Your task to perform on an android device: find which apps use the phone's location Image 0: 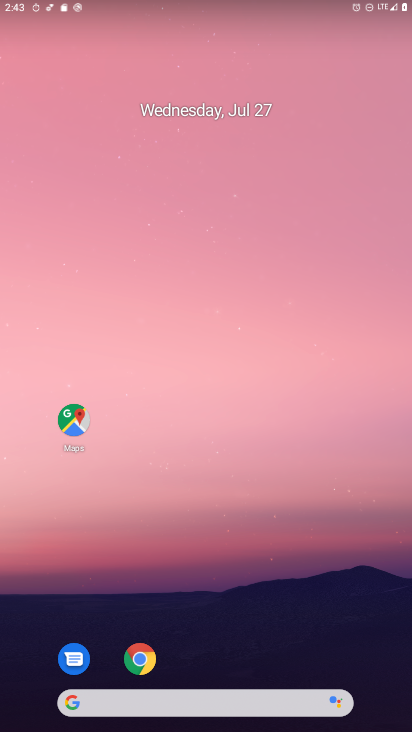
Step 0: drag from (256, 611) to (239, 11)
Your task to perform on an android device: find which apps use the phone's location Image 1: 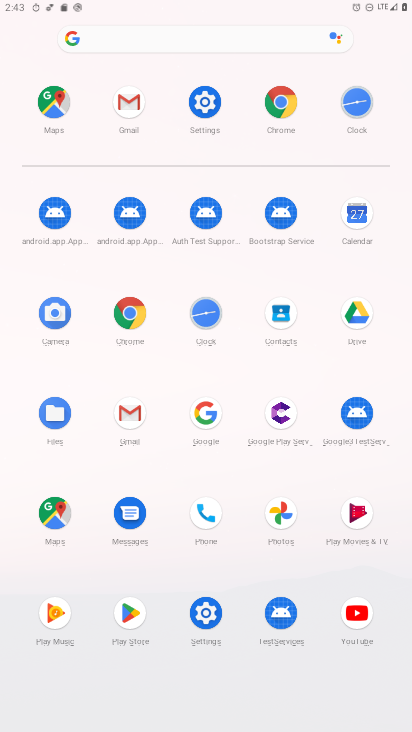
Step 1: click (206, 108)
Your task to perform on an android device: find which apps use the phone's location Image 2: 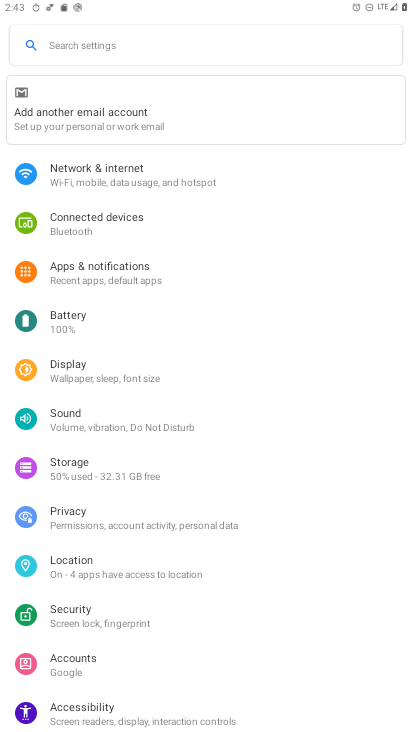
Step 2: click (120, 573)
Your task to perform on an android device: find which apps use the phone's location Image 3: 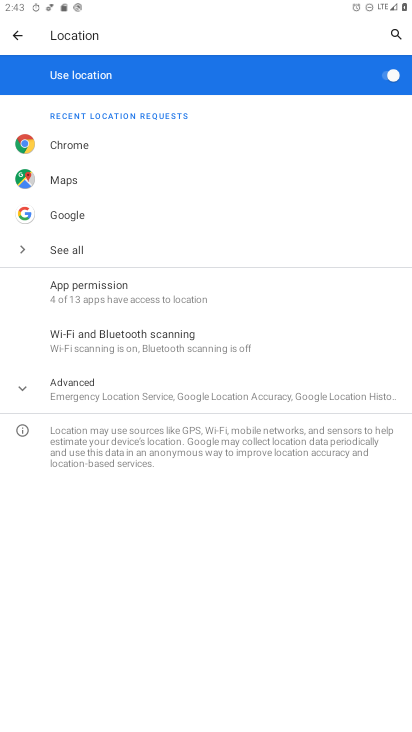
Step 3: click (126, 294)
Your task to perform on an android device: find which apps use the phone's location Image 4: 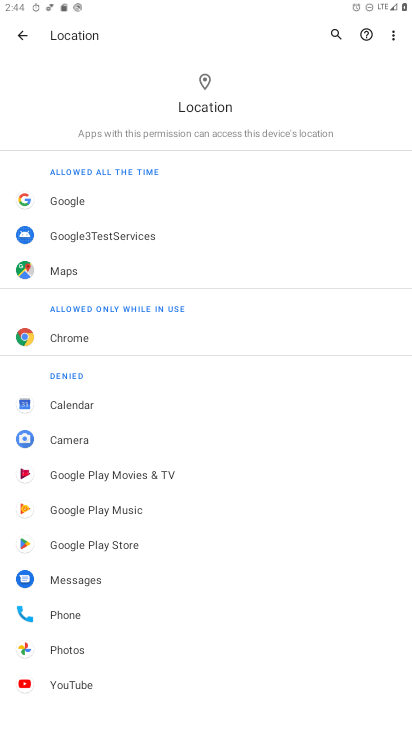
Step 4: task complete